Your task to perform on an android device: What is the news today? Image 0: 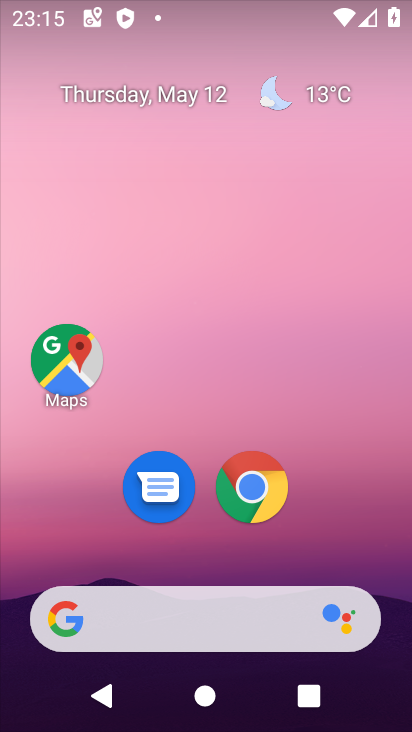
Step 0: click (194, 611)
Your task to perform on an android device: What is the news today? Image 1: 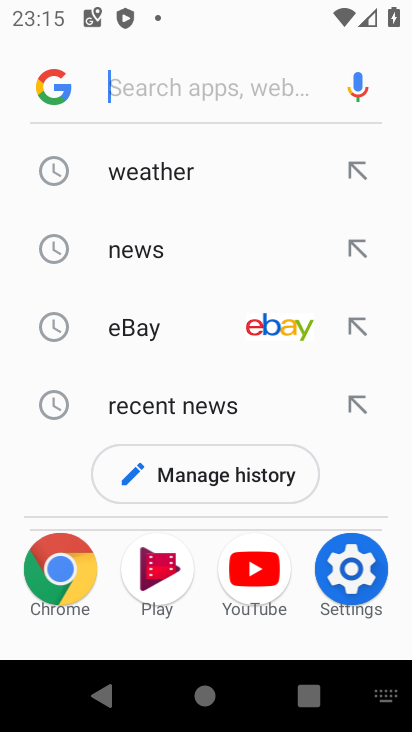
Step 1: click (179, 258)
Your task to perform on an android device: What is the news today? Image 2: 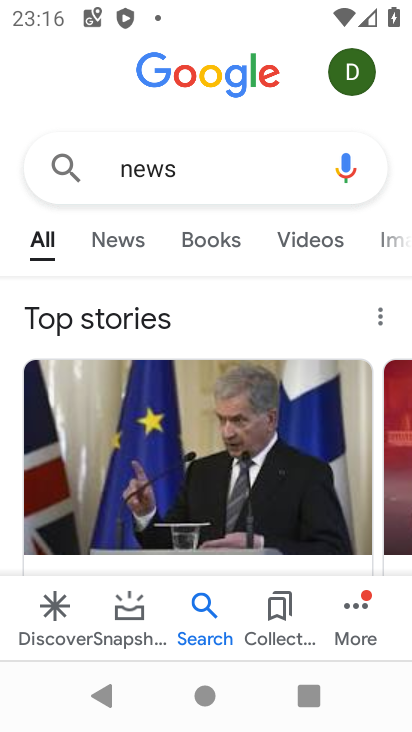
Step 2: task complete